Your task to perform on an android device: What's on my calendar tomorrow? Image 0: 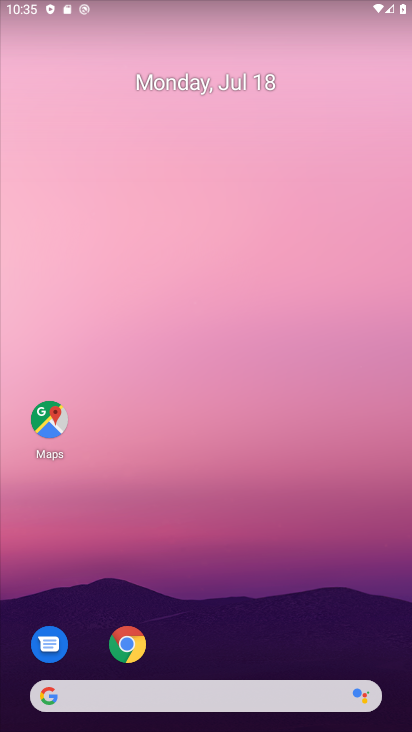
Step 0: drag from (222, 634) to (213, 213)
Your task to perform on an android device: What's on my calendar tomorrow? Image 1: 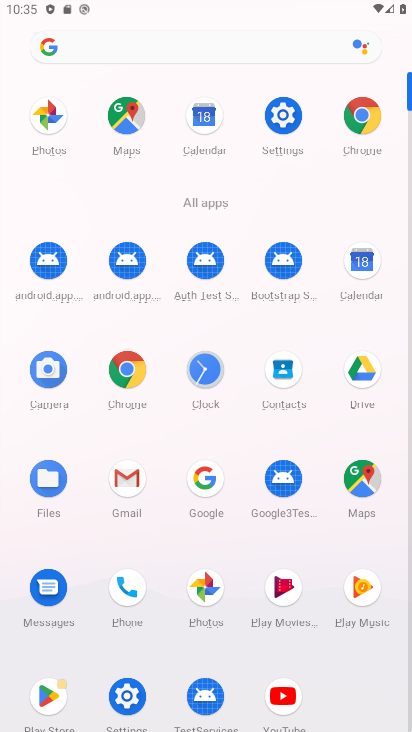
Step 1: click (362, 263)
Your task to perform on an android device: What's on my calendar tomorrow? Image 2: 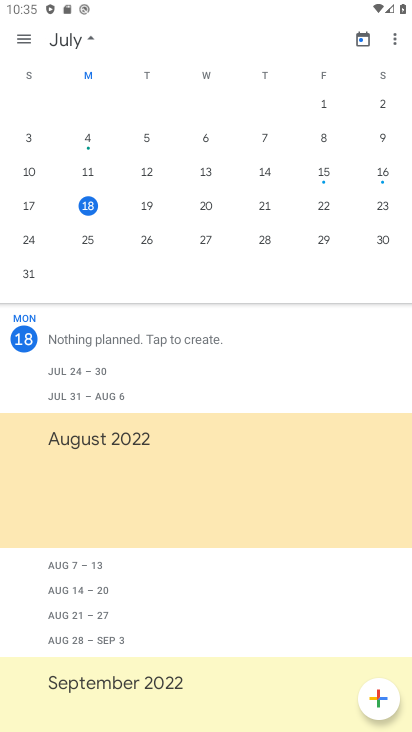
Step 2: click (143, 209)
Your task to perform on an android device: What's on my calendar tomorrow? Image 3: 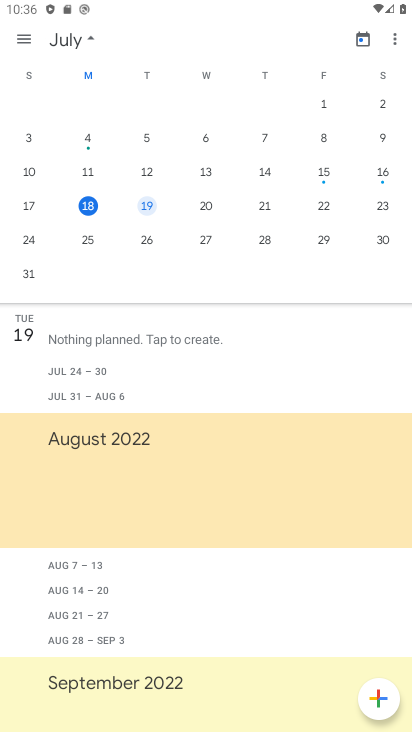
Step 3: task complete